Your task to perform on an android device: Go to Yahoo.com Image 0: 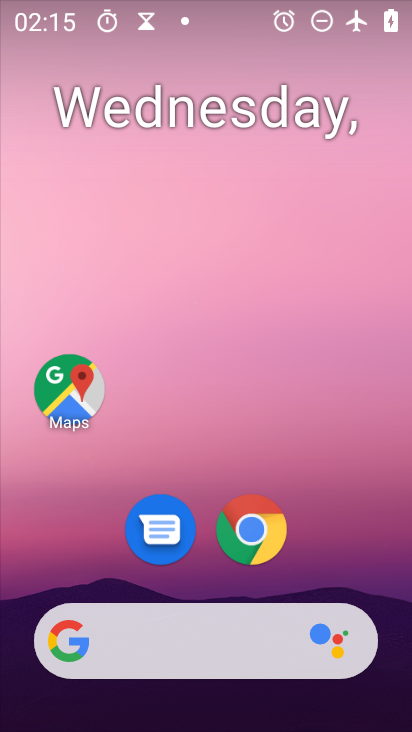
Step 0: drag from (272, 623) to (286, 105)
Your task to perform on an android device: Go to Yahoo.com Image 1: 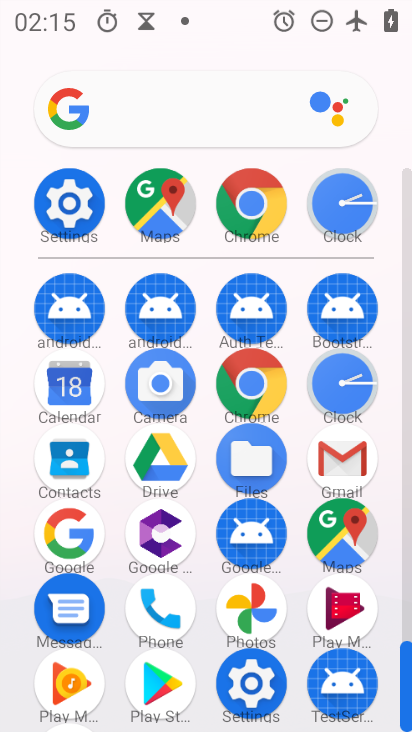
Step 1: click (250, 391)
Your task to perform on an android device: Go to Yahoo.com Image 2: 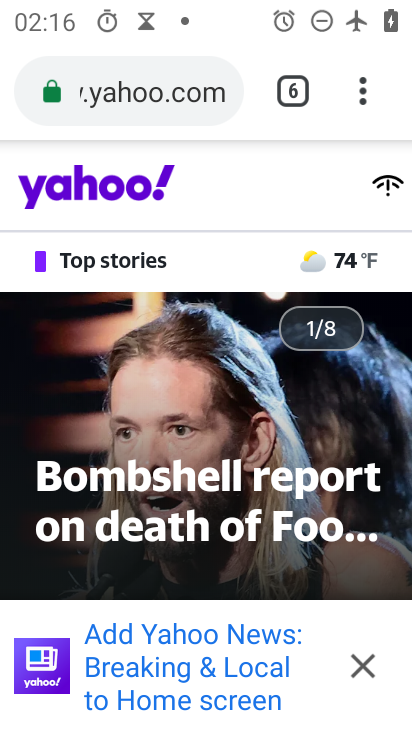
Step 2: task complete